Your task to perform on an android device: Open Android settings Image 0: 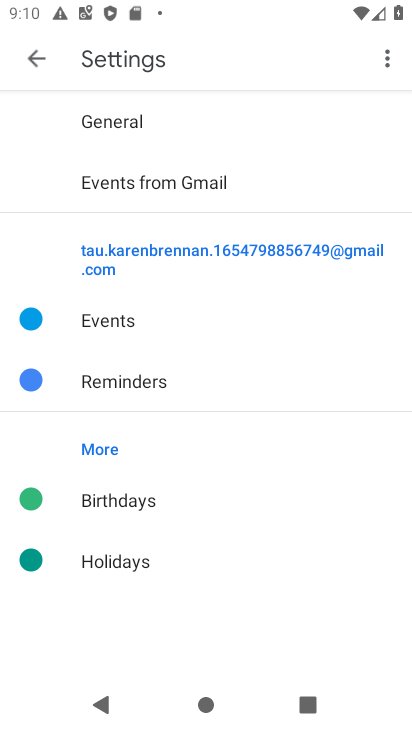
Step 0: press home button
Your task to perform on an android device: Open Android settings Image 1: 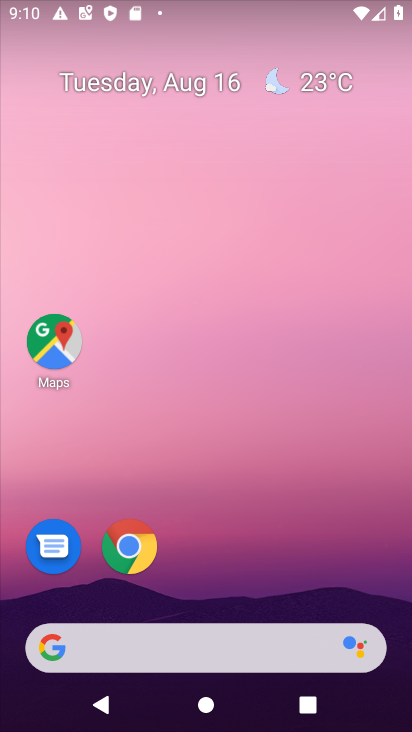
Step 1: drag from (205, 551) to (229, 0)
Your task to perform on an android device: Open Android settings Image 2: 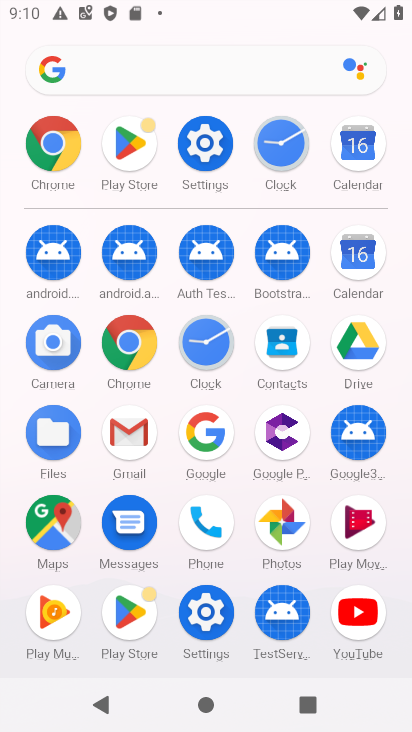
Step 2: click (204, 137)
Your task to perform on an android device: Open Android settings Image 3: 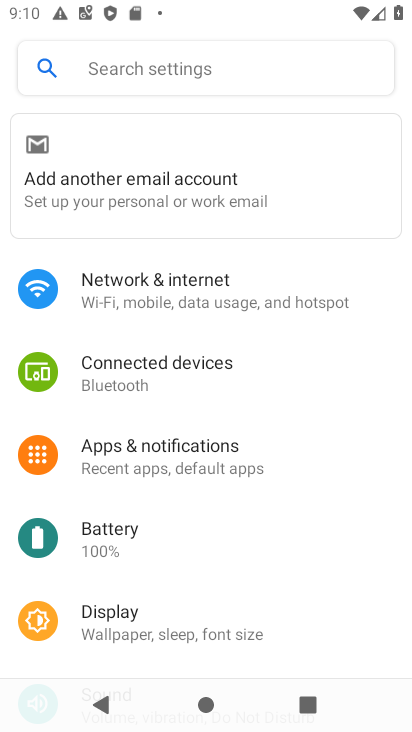
Step 3: drag from (201, 582) to (286, 9)
Your task to perform on an android device: Open Android settings Image 4: 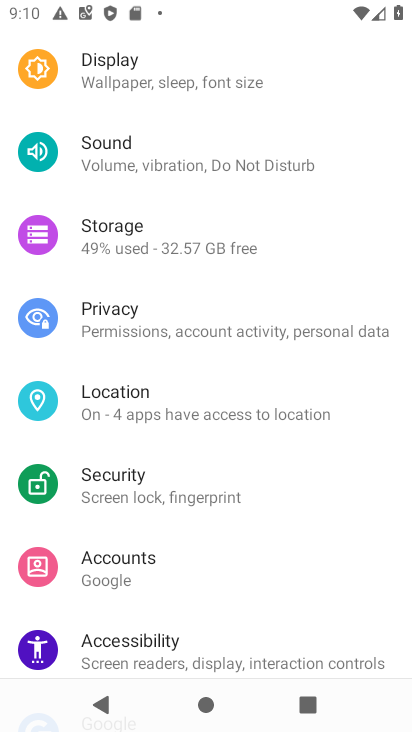
Step 4: drag from (234, 594) to (263, 0)
Your task to perform on an android device: Open Android settings Image 5: 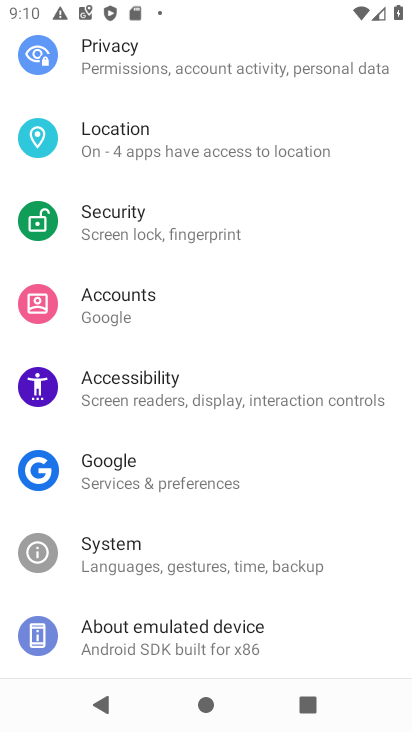
Step 5: click (197, 630)
Your task to perform on an android device: Open Android settings Image 6: 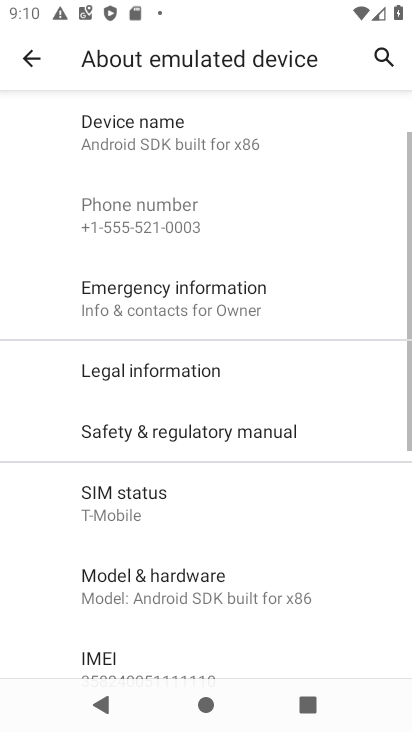
Step 6: task complete